Your task to perform on an android device: open device folders in google photos Image 0: 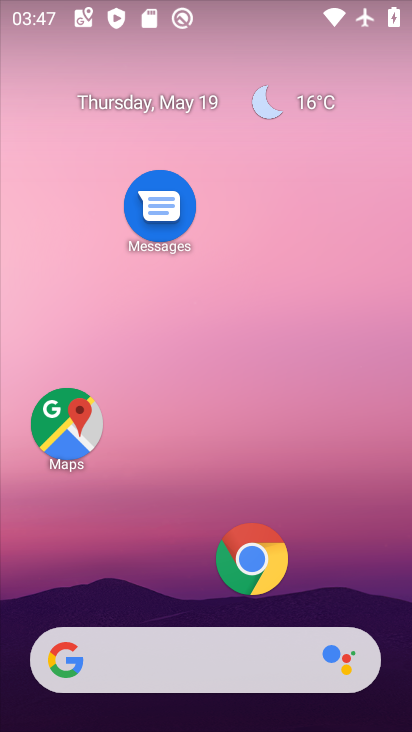
Step 0: drag from (192, 601) to (234, 242)
Your task to perform on an android device: open device folders in google photos Image 1: 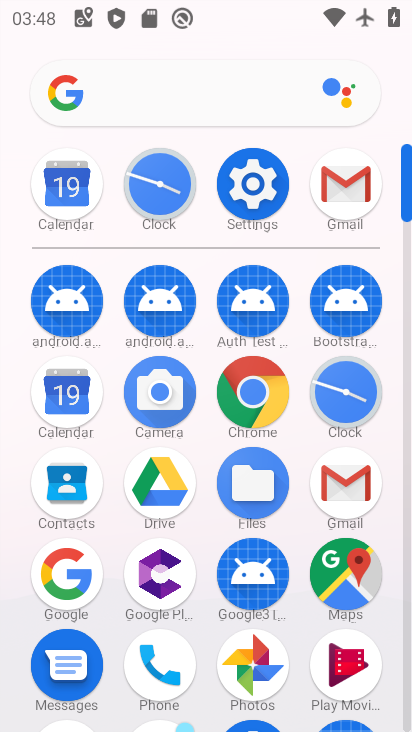
Step 1: click (260, 652)
Your task to perform on an android device: open device folders in google photos Image 2: 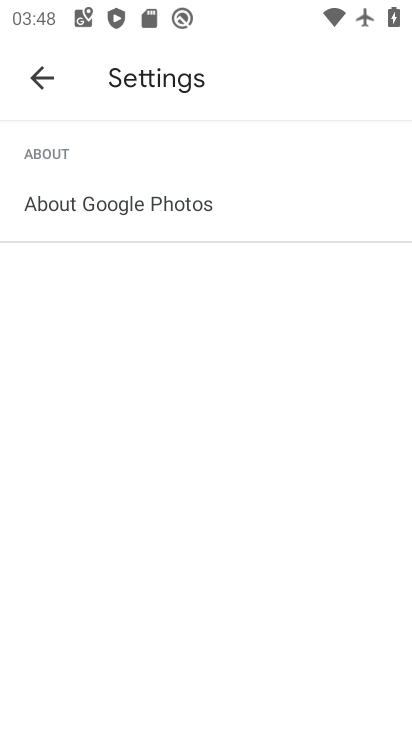
Step 2: click (39, 76)
Your task to perform on an android device: open device folders in google photos Image 3: 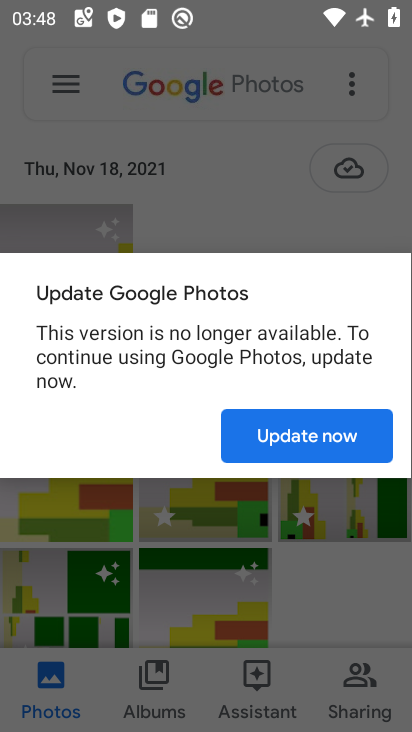
Step 3: click (255, 453)
Your task to perform on an android device: open device folders in google photos Image 4: 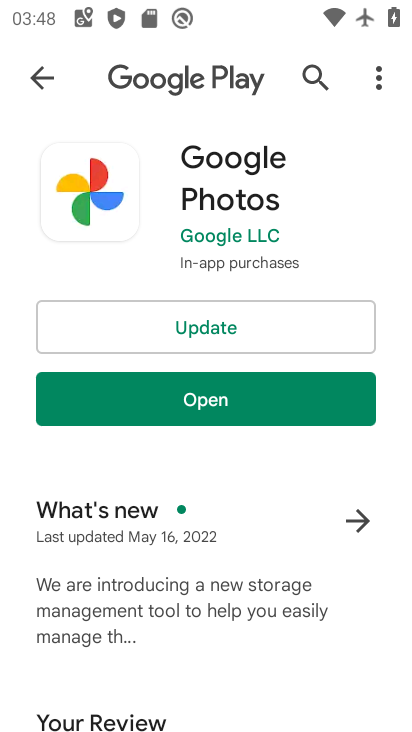
Step 4: click (235, 404)
Your task to perform on an android device: open device folders in google photos Image 5: 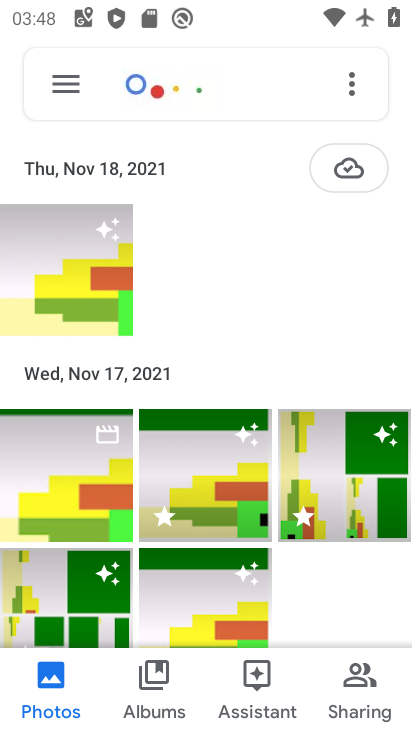
Step 5: click (53, 81)
Your task to perform on an android device: open device folders in google photos Image 6: 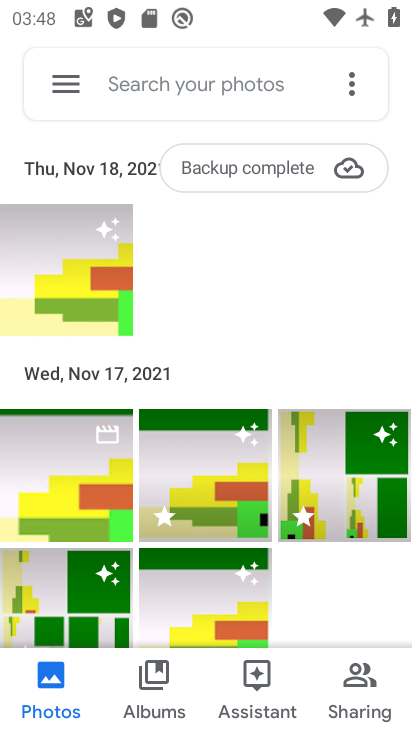
Step 6: click (60, 80)
Your task to perform on an android device: open device folders in google photos Image 7: 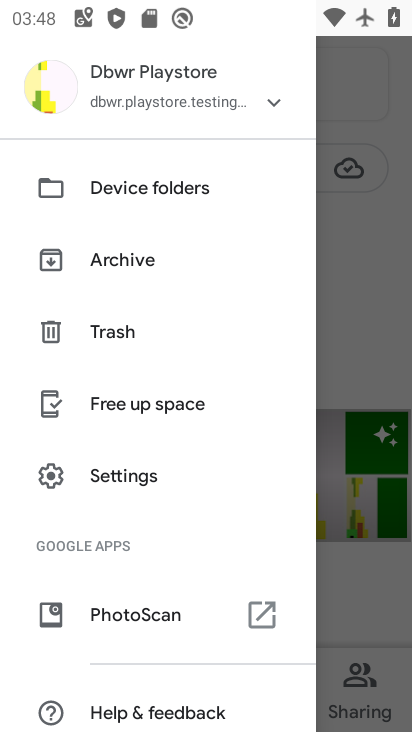
Step 7: click (126, 199)
Your task to perform on an android device: open device folders in google photos Image 8: 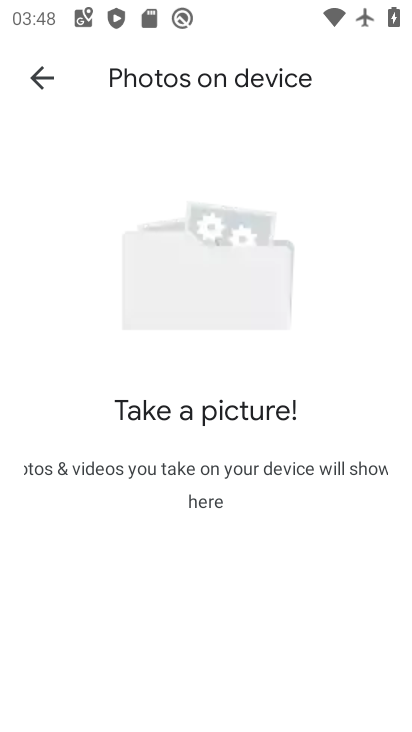
Step 8: task complete